Your task to perform on an android device: Go to Yahoo.com Image 0: 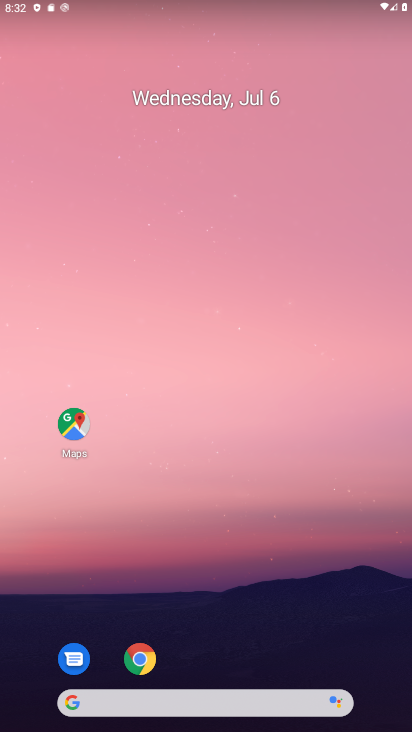
Step 0: drag from (346, 664) to (374, 125)
Your task to perform on an android device: Go to Yahoo.com Image 1: 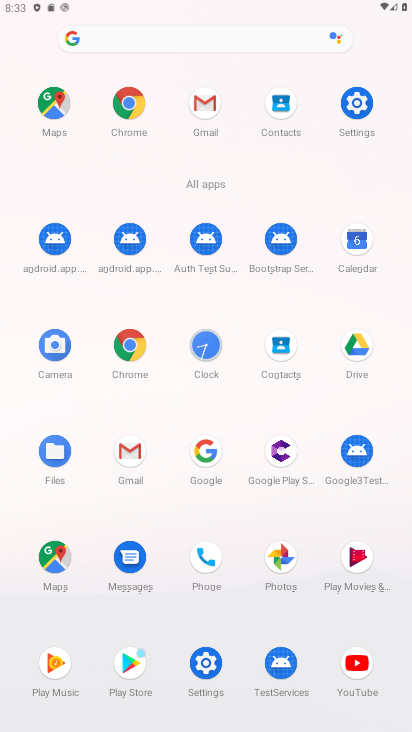
Step 1: click (133, 341)
Your task to perform on an android device: Go to Yahoo.com Image 2: 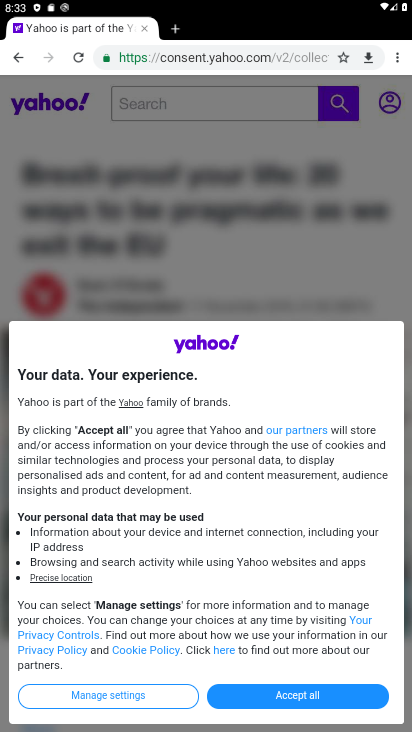
Step 2: task complete